Your task to perform on an android device: Toggle the flashlight Image 0: 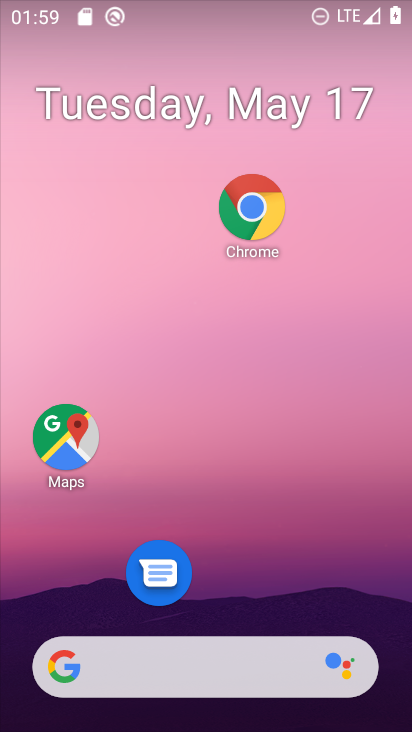
Step 0: drag from (265, 5) to (295, 579)
Your task to perform on an android device: Toggle the flashlight Image 1: 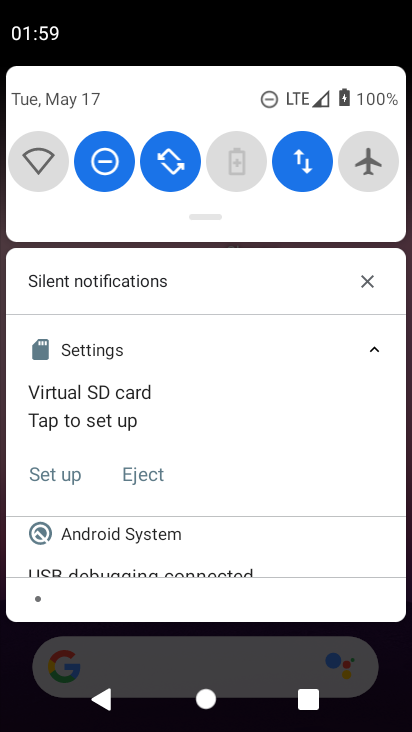
Step 1: task complete